Your task to perform on an android device: Search for Mexican restaurants on Maps Image 0: 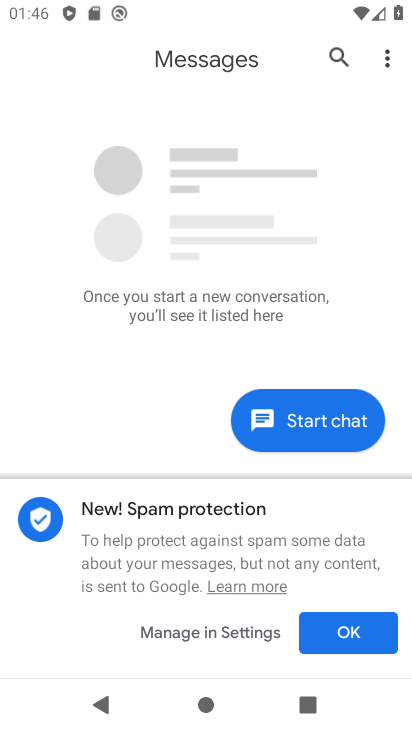
Step 0: press home button
Your task to perform on an android device: Search for Mexican restaurants on Maps Image 1: 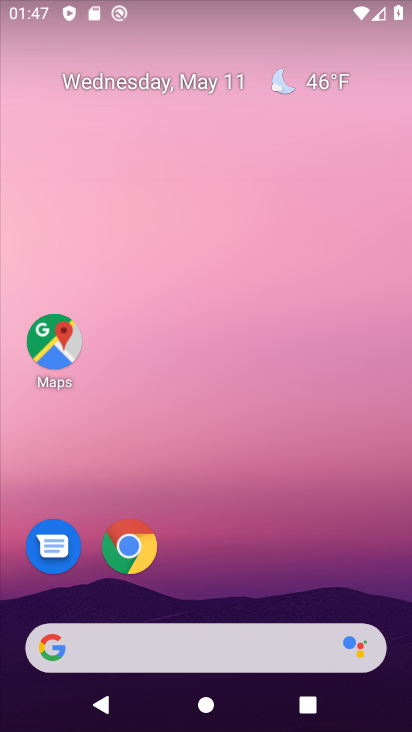
Step 1: drag from (200, 607) to (226, 206)
Your task to perform on an android device: Search for Mexican restaurants on Maps Image 2: 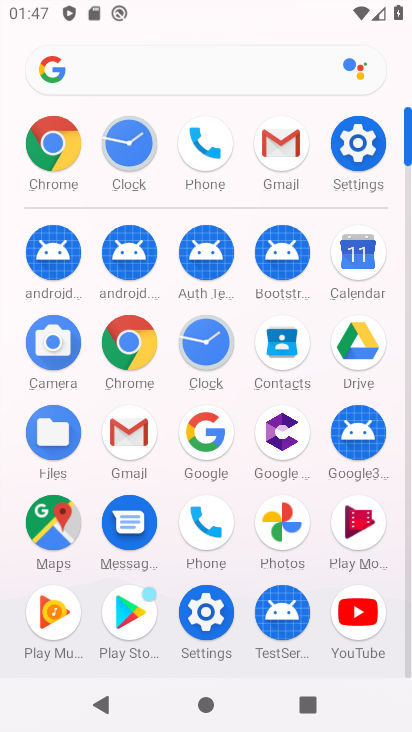
Step 2: click (66, 502)
Your task to perform on an android device: Search for Mexican restaurants on Maps Image 3: 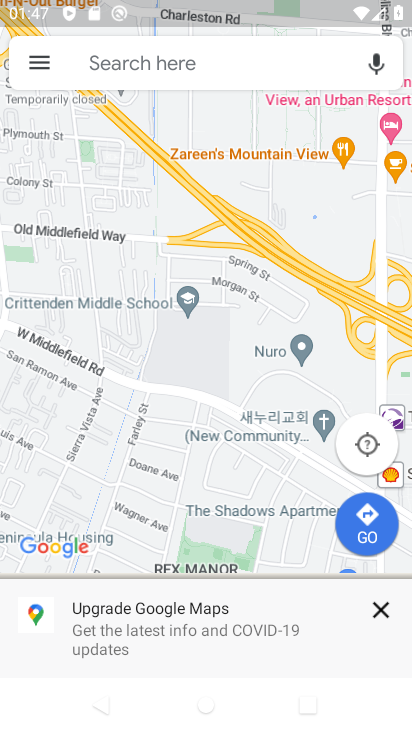
Step 3: drag from (218, 429) to (256, 167)
Your task to perform on an android device: Search for Mexican restaurants on Maps Image 4: 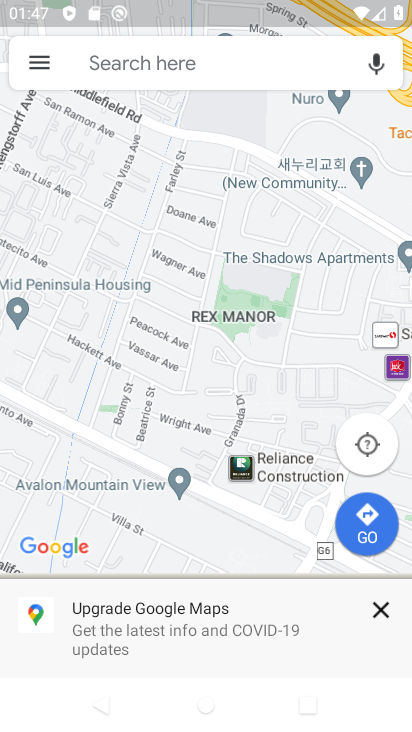
Step 4: click (130, 75)
Your task to perform on an android device: Search for Mexican restaurants on Maps Image 5: 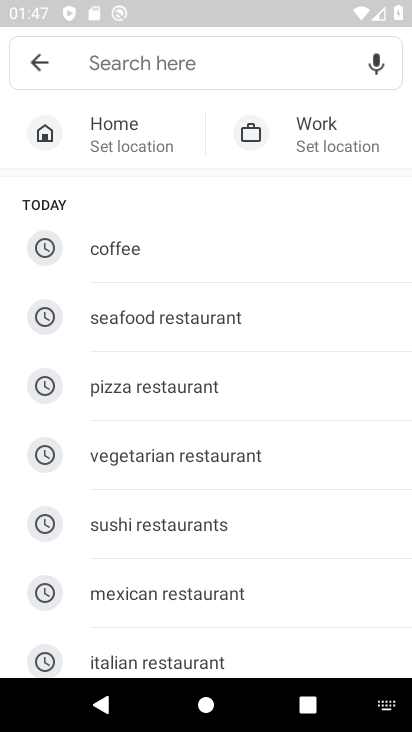
Step 5: drag from (179, 594) to (200, 317)
Your task to perform on an android device: Search for Mexican restaurants on Maps Image 6: 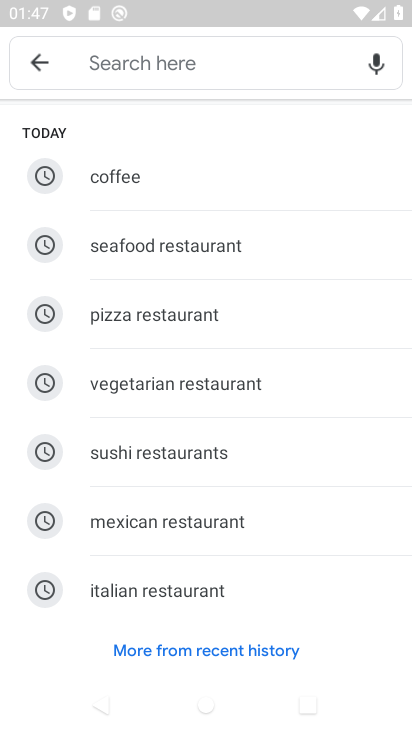
Step 6: click (160, 516)
Your task to perform on an android device: Search for Mexican restaurants on Maps Image 7: 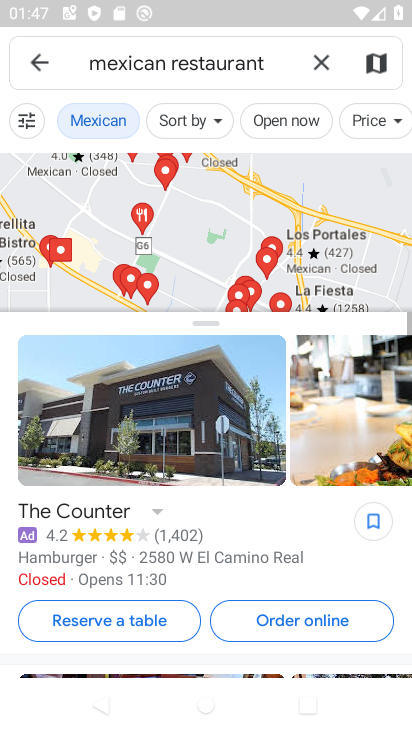
Step 7: task complete